Your task to perform on an android device: toggle improve location accuracy Image 0: 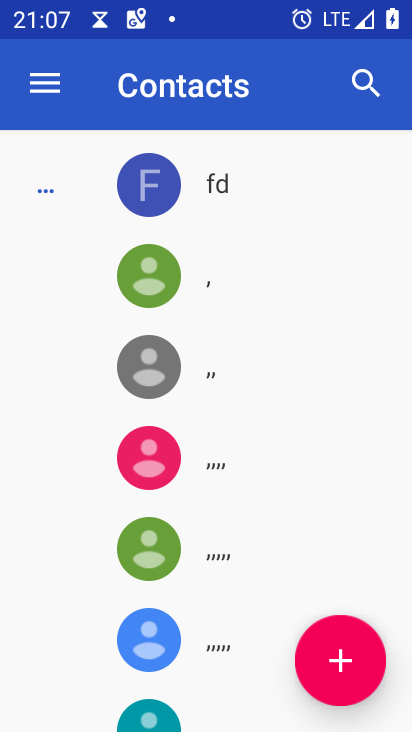
Step 0: press home button
Your task to perform on an android device: toggle improve location accuracy Image 1: 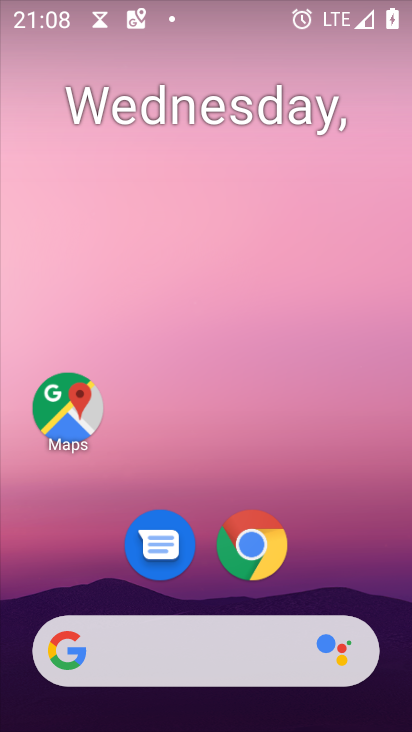
Step 1: drag from (146, 644) to (283, 86)
Your task to perform on an android device: toggle improve location accuracy Image 2: 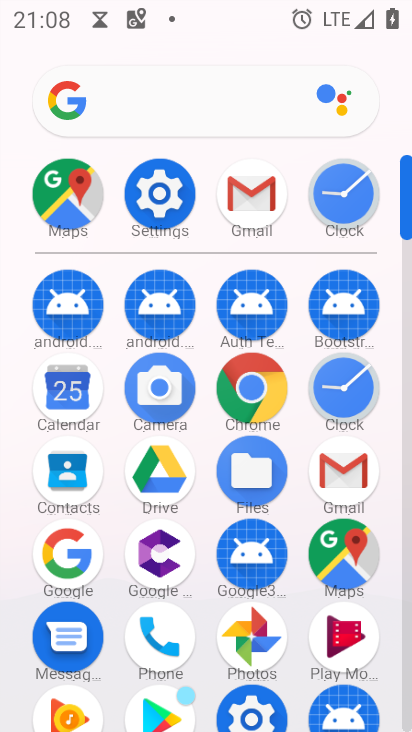
Step 2: click (170, 208)
Your task to perform on an android device: toggle improve location accuracy Image 3: 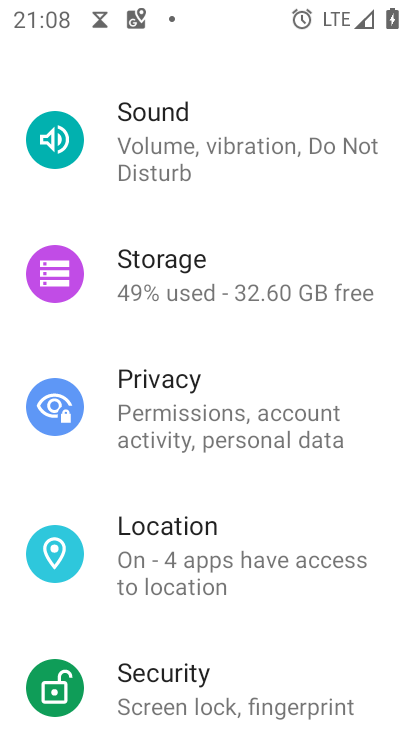
Step 3: click (198, 559)
Your task to perform on an android device: toggle improve location accuracy Image 4: 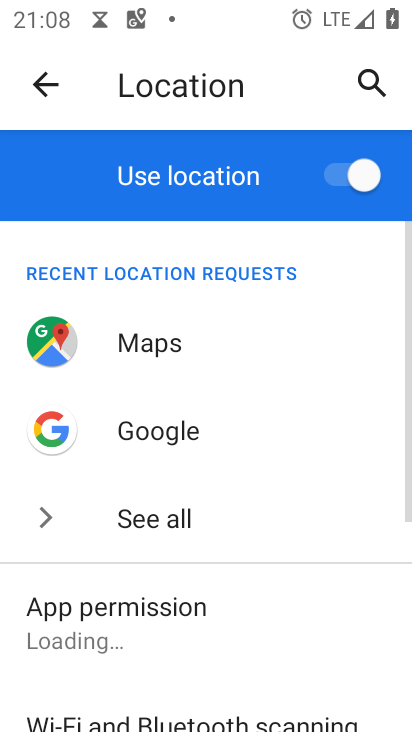
Step 4: drag from (192, 656) to (350, 155)
Your task to perform on an android device: toggle improve location accuracy Image 5: 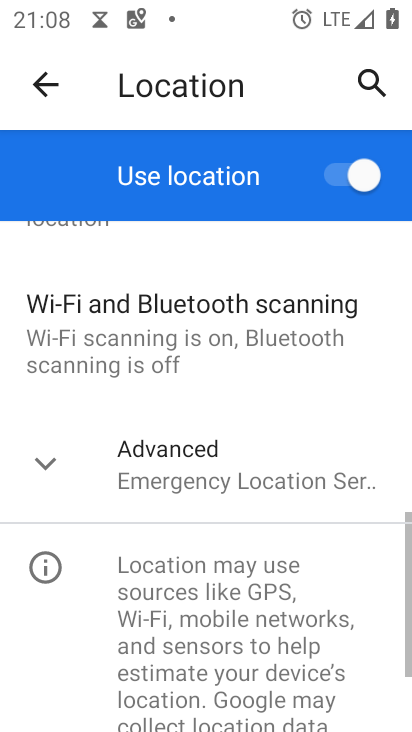
Step 5: click (181, 443)
Your task to perform on an android device: toggle improve location accuracy Image 6: 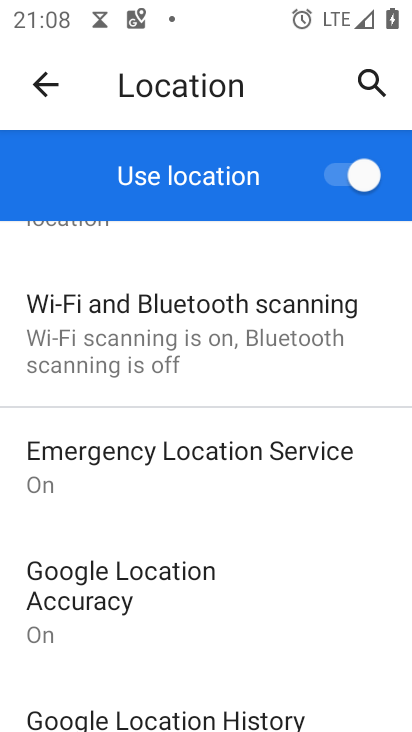
Step 6: click (79, 591)
Your task to perform on an android device: toggle improve location accuracy Image 7: 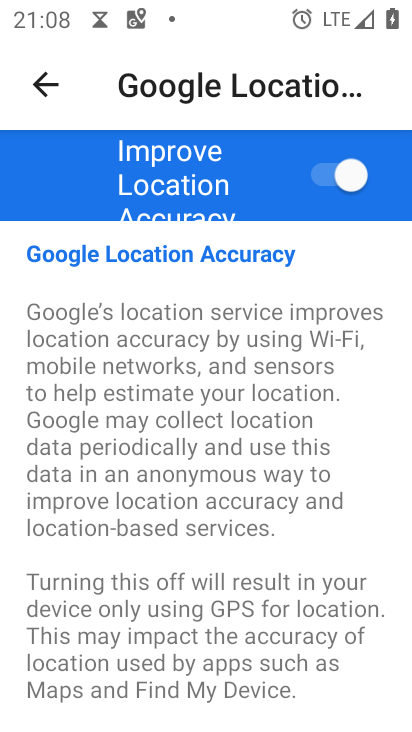
Step 7: click (325, 178)
Your task to perform on an android device: toggle improve location accuracy Image 8: 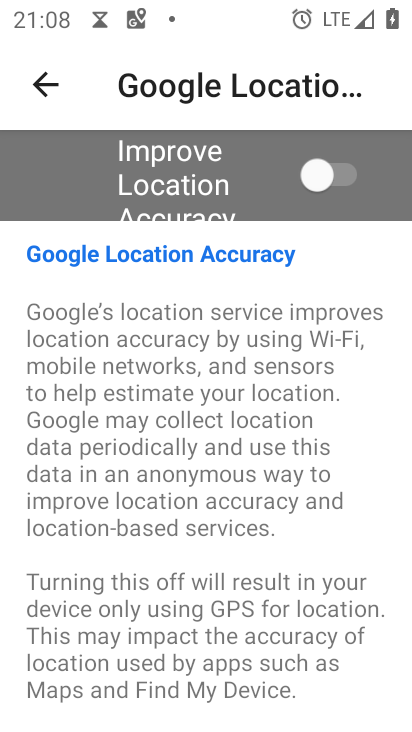
Step 8: task complete